Your task to perform on an android device: Go to Android settings Image 0: 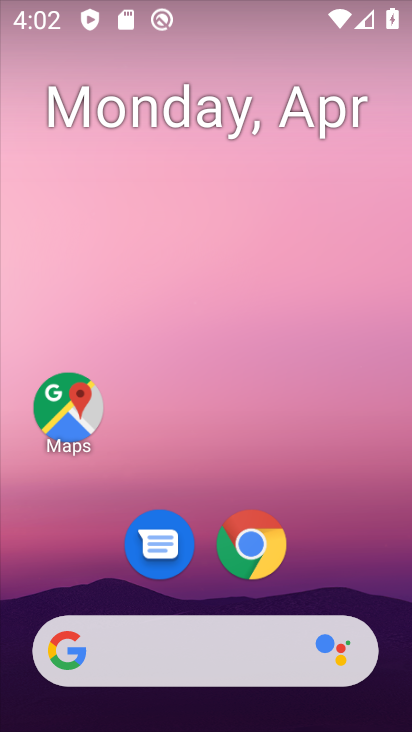
Step 0: drag from (181, 589) to (281, 94)
Your task to perform on an android device: Go to Android settings Image 1: 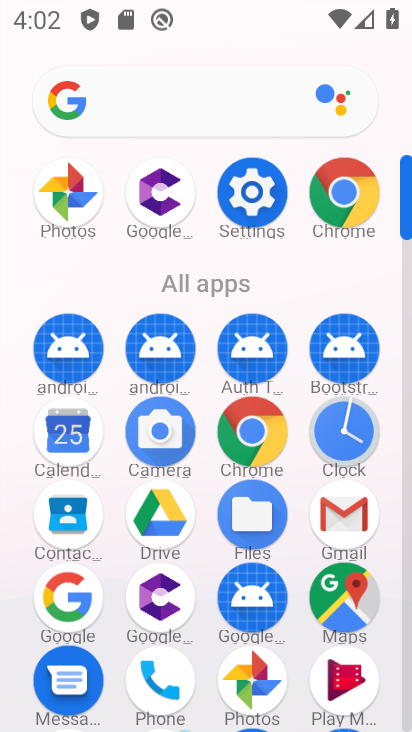
Step 1: click (273, 209)
Your task to perform on an android device: Go to Android settings Image 2: 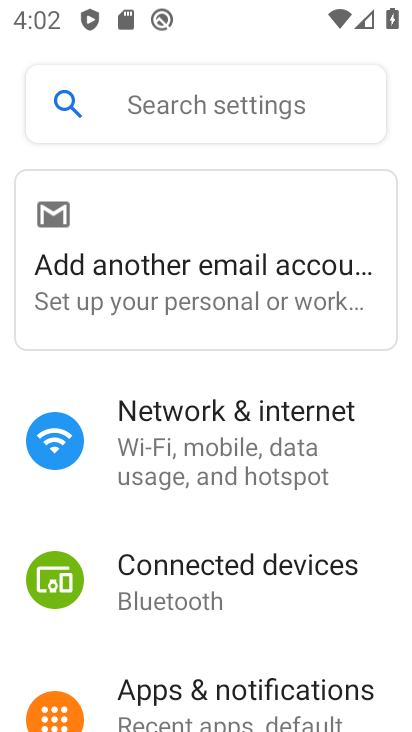
Step 2: task complete